Your task to perform on an android device: turn off notifications settings in the gmail app Image 0: 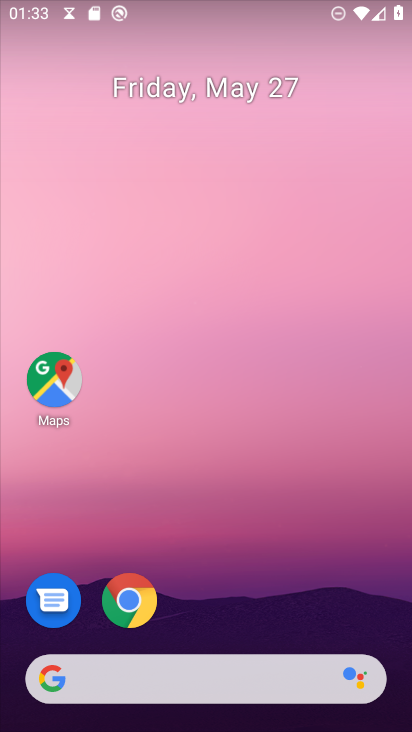
Step 0: drag from (176, 494) to (153, 186)
Your task to perform on an android device: turn off notifications settings in the gmail app Image 1: 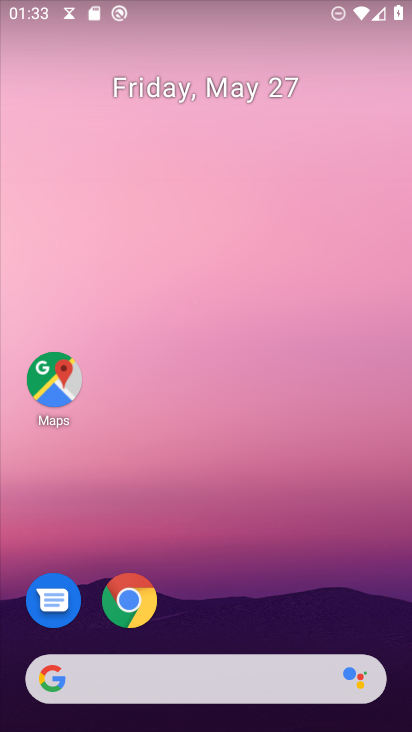
Step 1: drag from (210, 546) to (185, 132)
Your task to perform on an android device: turn off notifications settings in the gmail app Image 2: 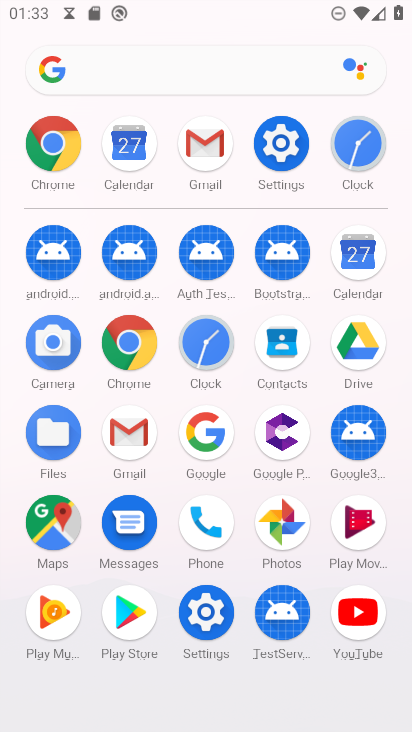
Step 2: click (196, 143)
Your task to perform on an android device: turn off notifications settings in the gmail app Image 3: 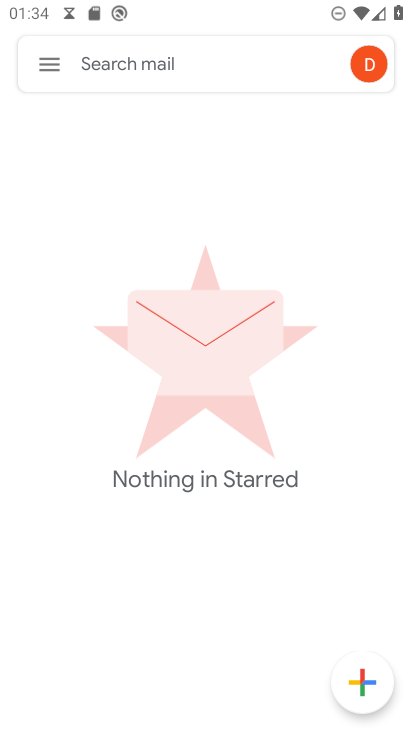
Step 3: click (46, 61)
Your task to perform on an android device: turn off notifications settings in the gmail app Image 4: 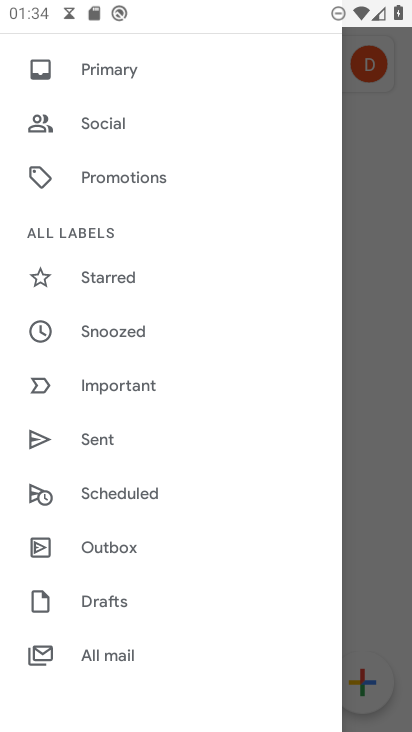
Step 4: drag from (173, 636) to (181, 412)
Your task to perform on an android device: turn off notifications settings in the gmail app Image 5: 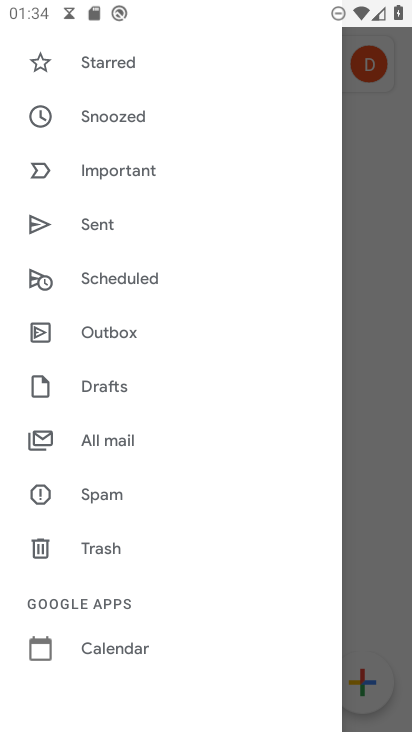
Step 5: drag from (148, 614) to (169, 444)
Your task to perform on an android device: turn off notifications settings in the gmail app Image 6: 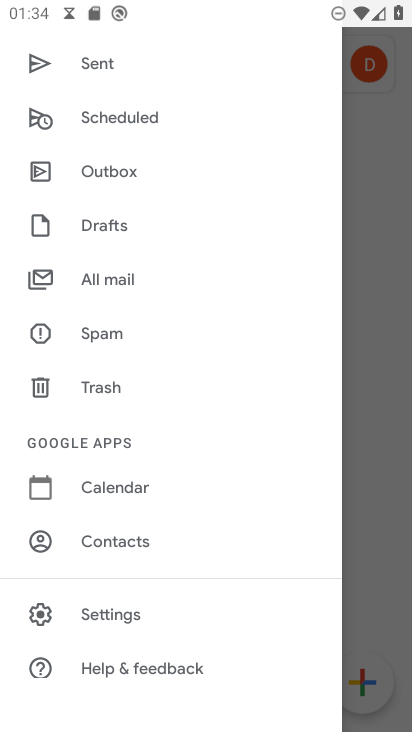
Step 6: click (113, 600)
Your task to perform on an android device: turn off notifications settings in the gmail app Image 7: 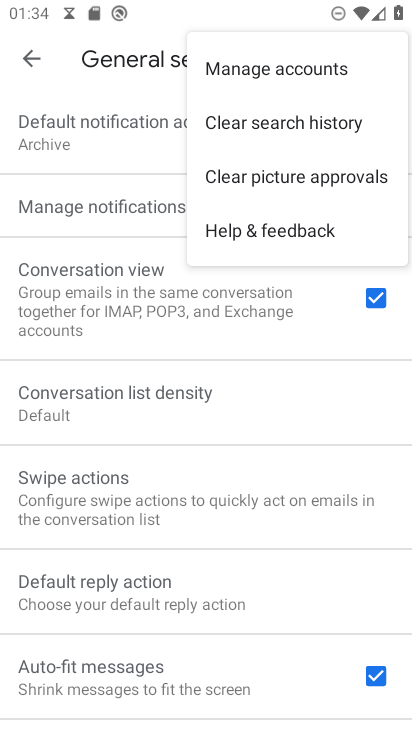
Step 7: click (82, 313)
Your task to perform on an android device: turn off notifications settings in the gmail app Image 8: 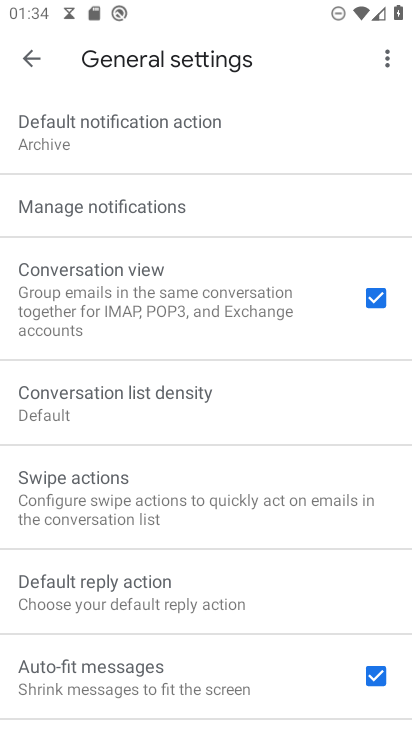
Step 8: click (21, 205)
Your task to perform on an android device: turn off notifications settings in the gmail app Image 9: 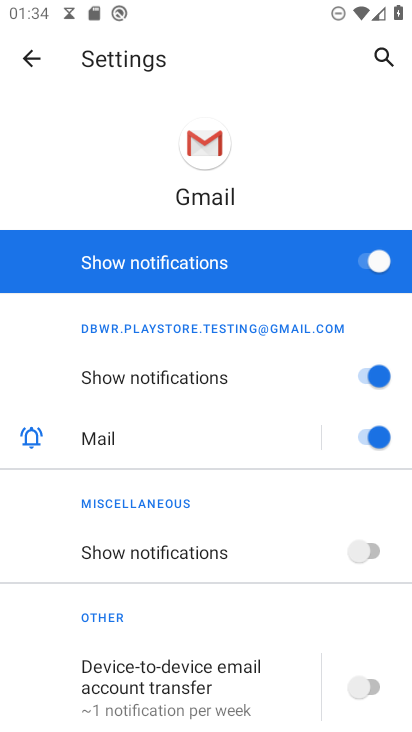
Step 9: click (374, 261)
Your task to perform on an android device: turn off notifications settings in the gmail app Image 10: 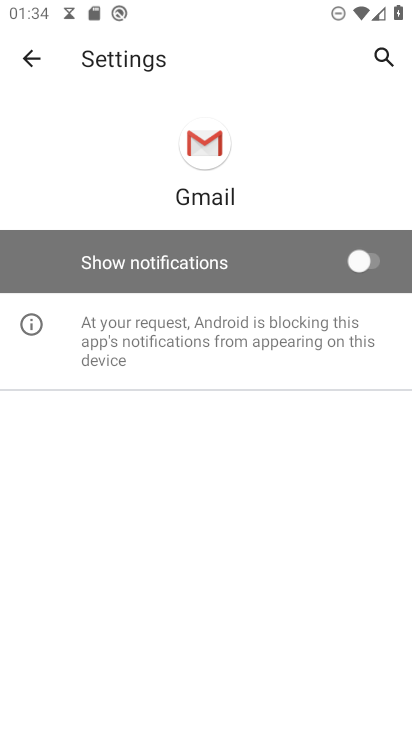
Step 10: task complete